Your task to perform on an android device: Open sound settings Image 0: 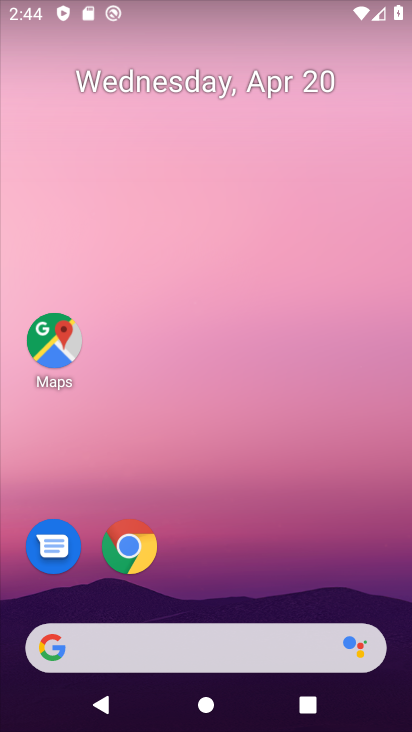
Step 0: drag from (210, 492) to (263, 103)
Your task to perform on an android device: Open sound settings Image 1: 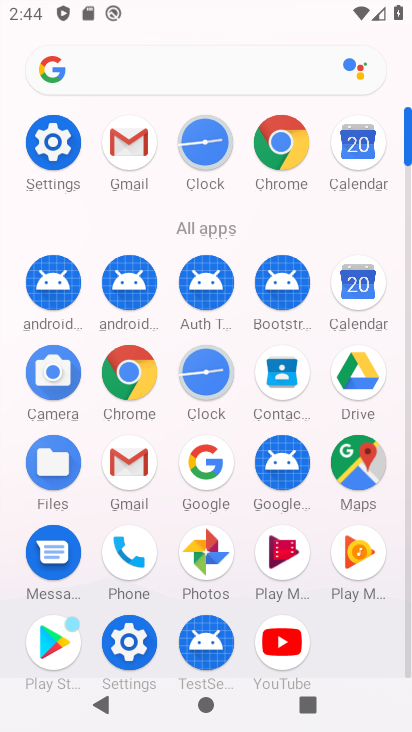
Step 1: click (54, 154)
Your task to perform on an android device: Open sound settings Image 2: 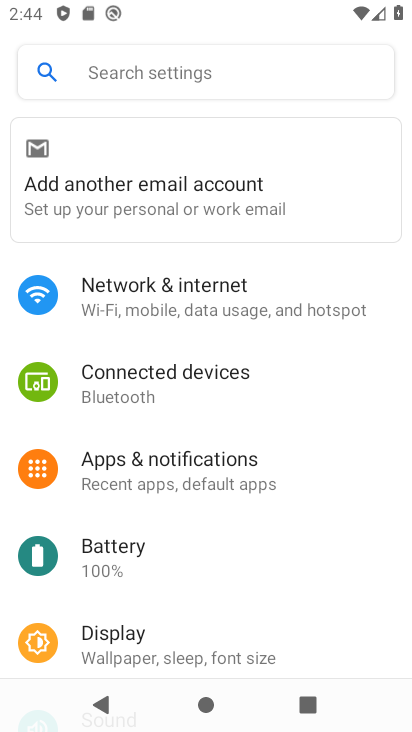
Step 2: drag from (173, 574) to (162, 217)
Your task to perform on an android device: Open sound settings Image 3: 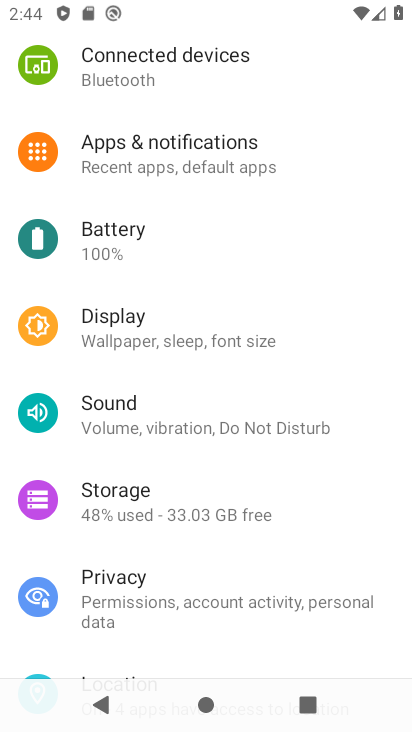
Step 3: click (120, 429)
Your task to perform on an android device: Open sound settings Image 4: 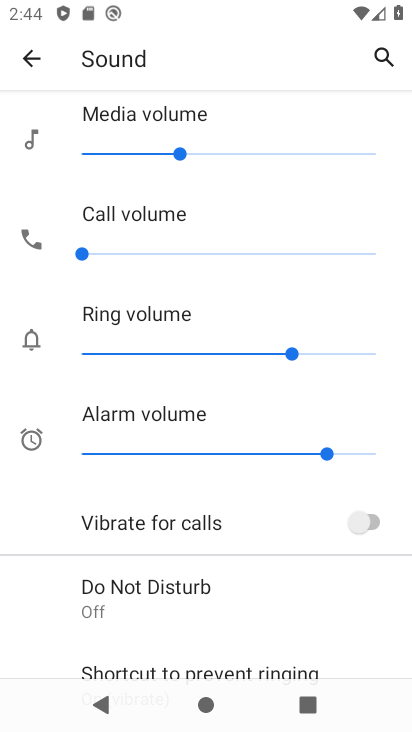
Step 4: task complete